Your task to perform on an android device: open device folders in google photos Image 0: 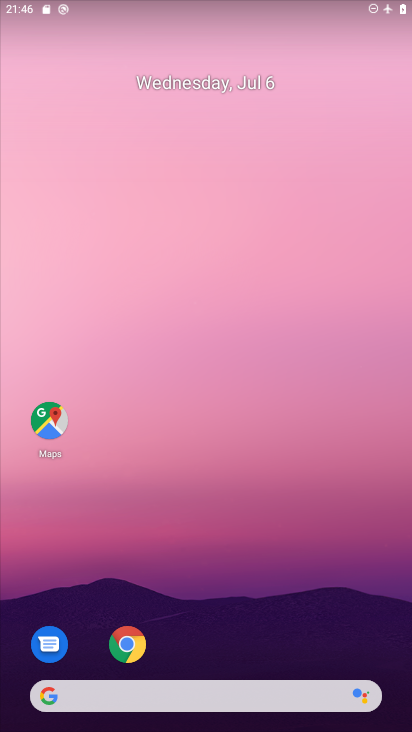
Step 0: drag from (214, 644) to (181, 243)
Your task to perform on an android device: open device folders in google photos Image 1: 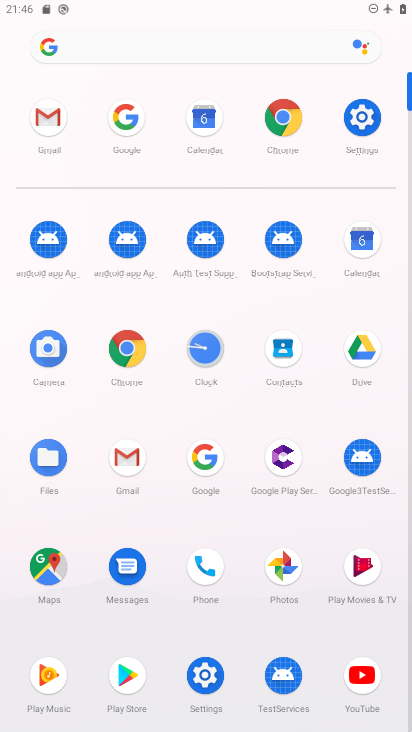
Step 1: click (265, 554)
Your task to perform on an android device: open device folders in google photos Image 2: 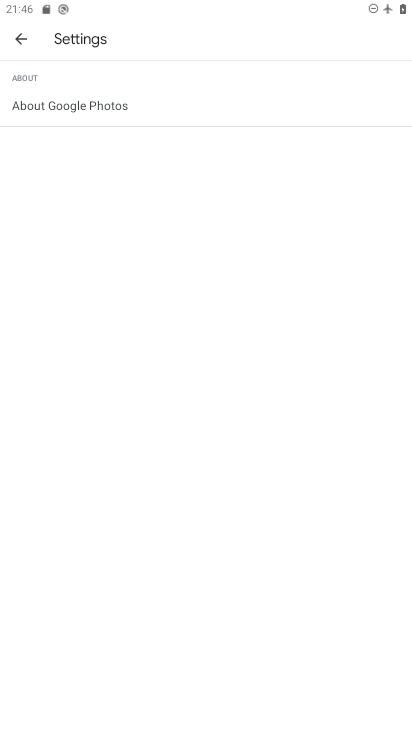
Step 2: click (18, 49)
Your task to perform on an android device: open device folders in google photos Image 3: 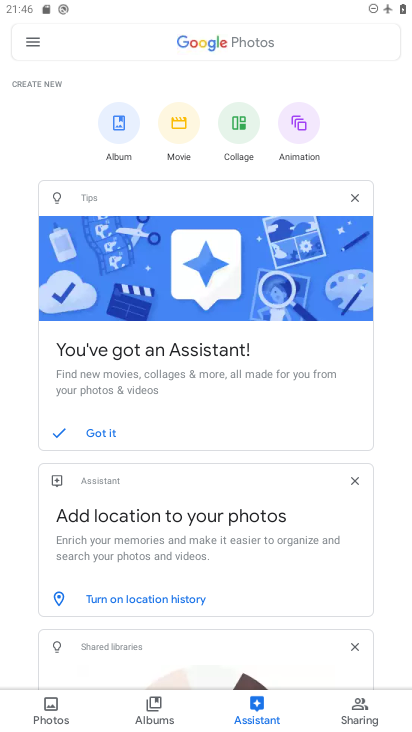
Step 3: click (26, 44)
Your task to perform on an android device: open device folders in google photos Image 4: 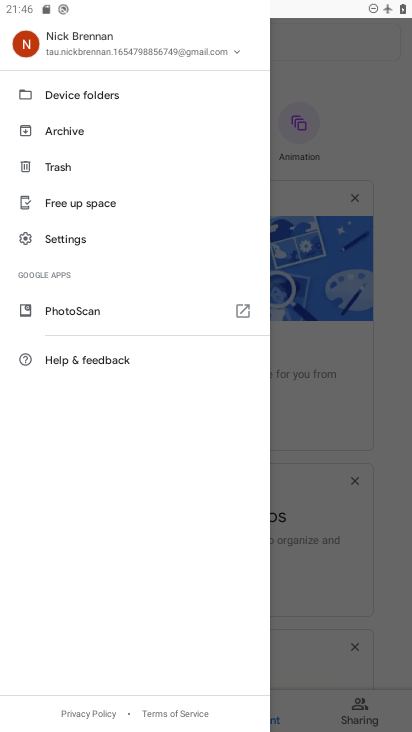
Step 4: click (107, 103)
Your task to perform on an android device: open device folders in google photos Image 5: 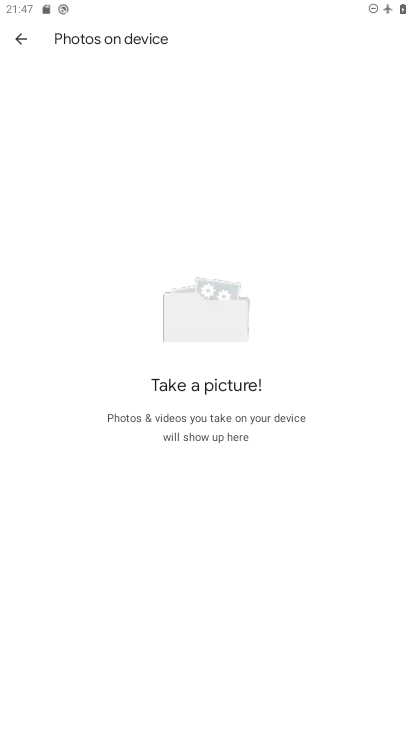
Step 5: task complete